Your task to perform on an android device: Go to Android settings Image 0: 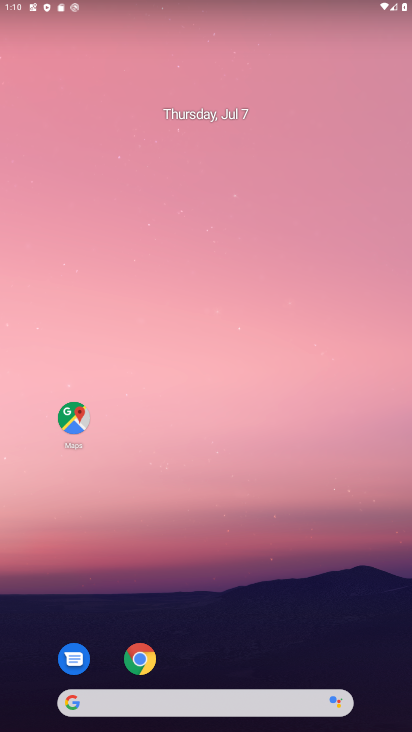
Step 0: drag from (185, 673) to (273, 2)
Your task to perform on an android device: Go to Android settings Image 1: 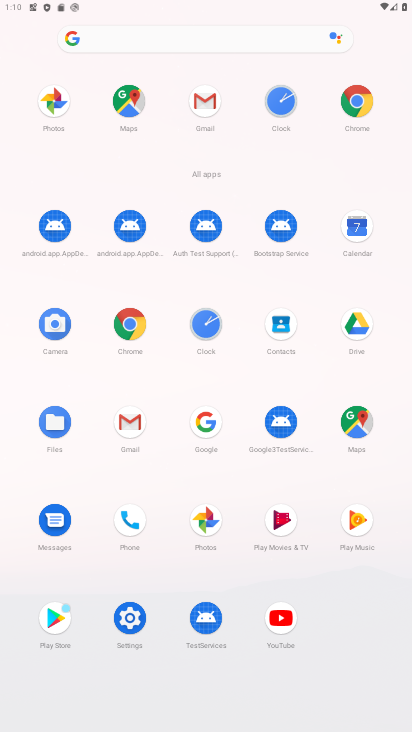
Step 1: click (136, 640)
Your task to perform on an android device: Go to Android settings Image 2: 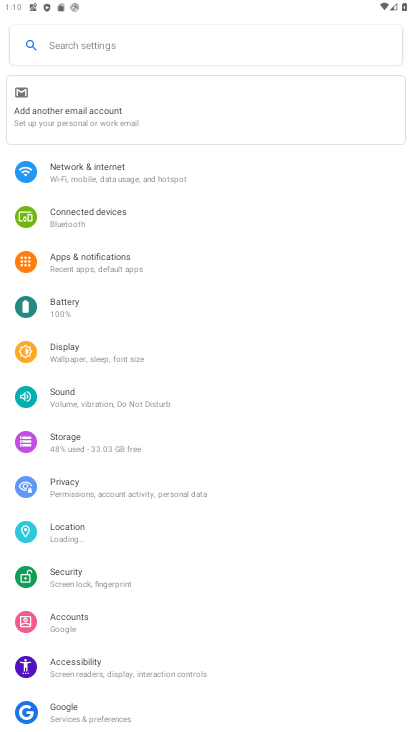
Step 2: task complete